Your task to perform on an android device: visit the assistant section in the google photos Image 0: 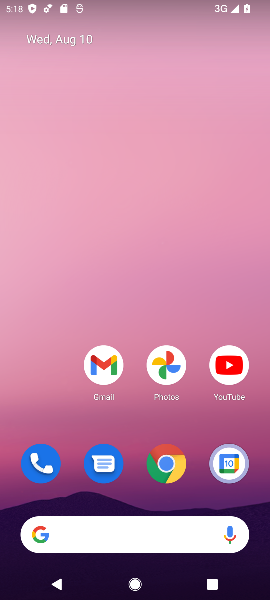
Step 0: click (171, 367)
Your task to perform on an android device: visit the assistant section in the google photos Image 1: 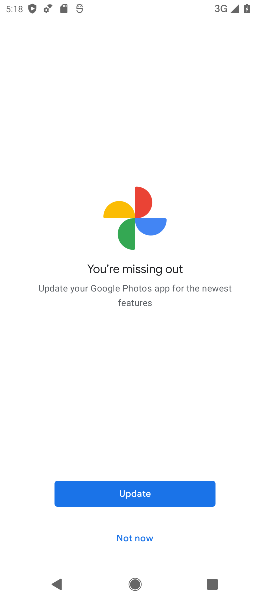
Step 1: click (135, 492)
Your task to perform on an android device: visit the assistant section in the google photos Image 2: 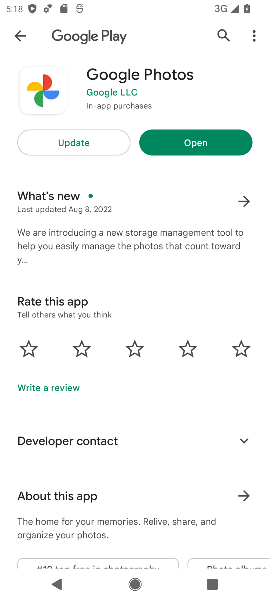
Step 2: click (91, 144)
Your task to perform on an android device: visit the assistant section in the google photos Image 3: 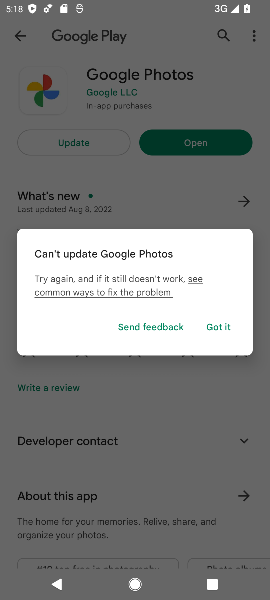
Step 3: click (205, 327)
Your task to perform on an android device: visit the assistant section in the google photos Image 4: 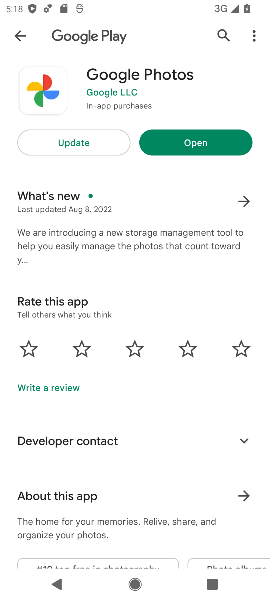
Step 4: click (79, 145)
Your task to perform on an android device: visit the assistant section in the google photos Image 5: 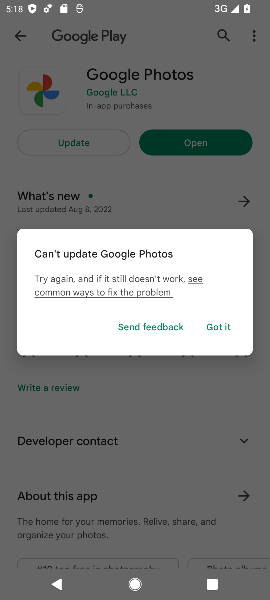
Step 5: click (212, 323)
Your task to perform on an android device: visit the assistant section in the google photos Image 6: 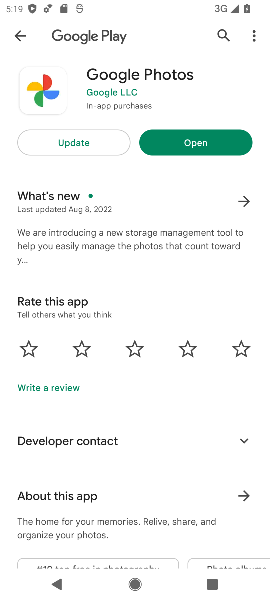
Step 6: task complete